Your task to perform on an android device: Do I have any events tomorrow? Image 0: 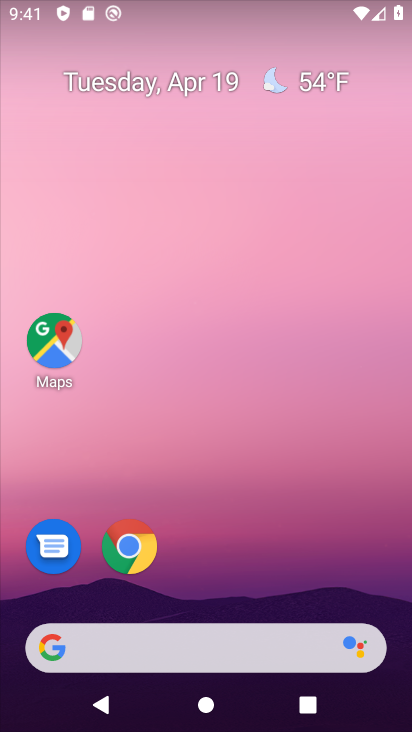
Step 0: drag from (294, 699) to (326, 50)
Your task to perform on an android device: Do I have any events tomorrow? Image 1: 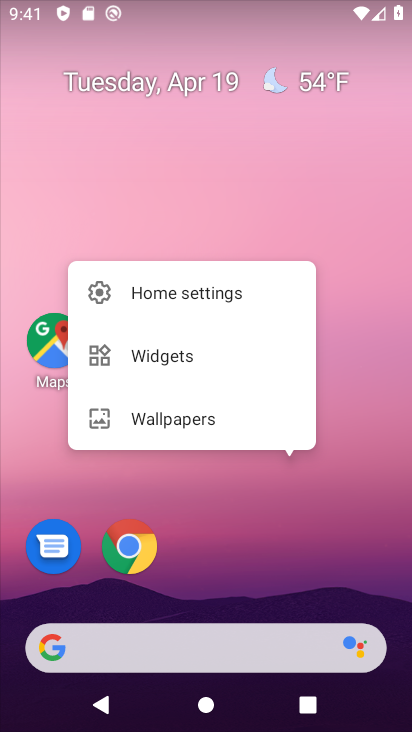
Step 1: click (249, 707)
Your task to perform on an android device: Do I have any events tomorrow? Image 2: 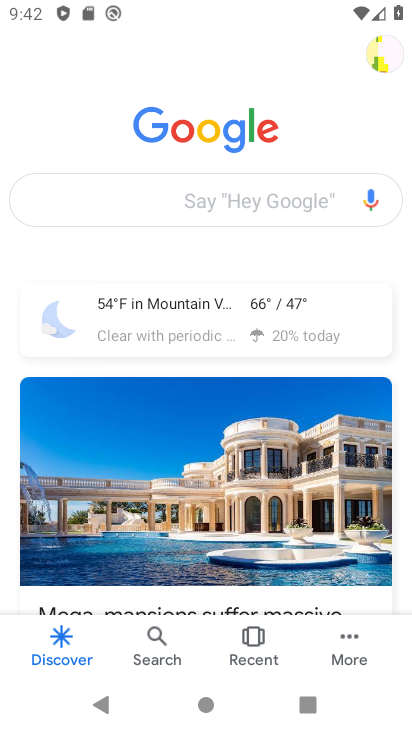
Step 2: press home button
Your task to perform on an android device: Do I have any events tomorrow? Image 3: 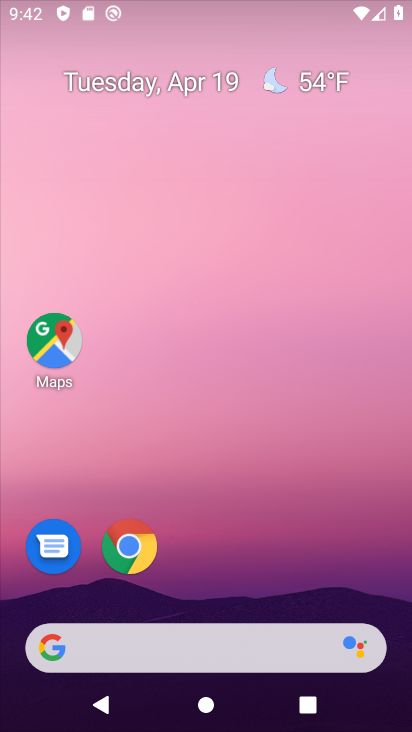
Step 3: drag from (258, 693) to (274, 62)
Your task to perform on an android device: Do I have any events tomorrow? Image 4: 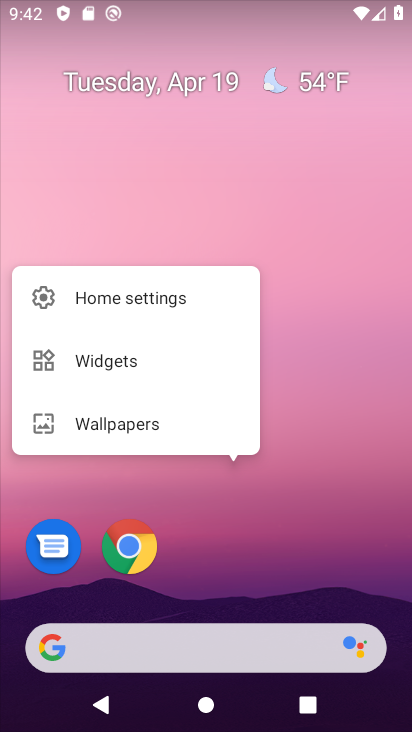
Step 4: click (260, 713)
Your task to perform on an android device: Do I have any events tomorrow? Image 5: 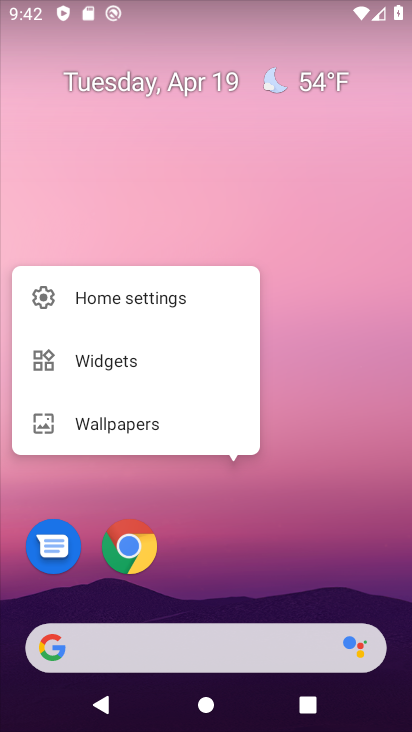
Step 5: click (214, 711)
Your task to perform on an android device: Do I have any events tomorrow? Image 6: 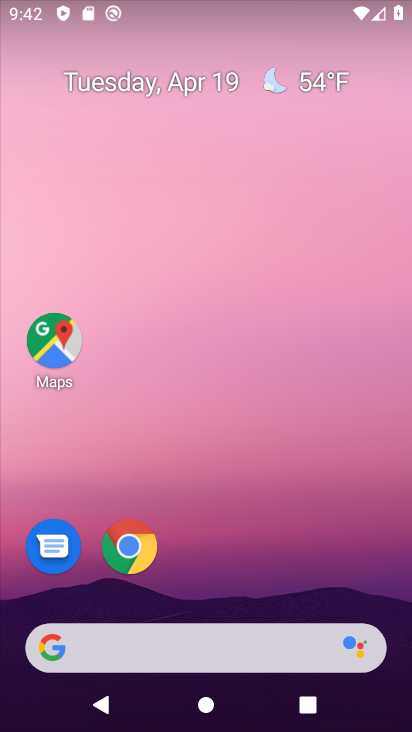
Step 6: drag from (255, 718) to (232, 13)
Your task to perform on an android device: Do I have any events tomorrow? Image 7: 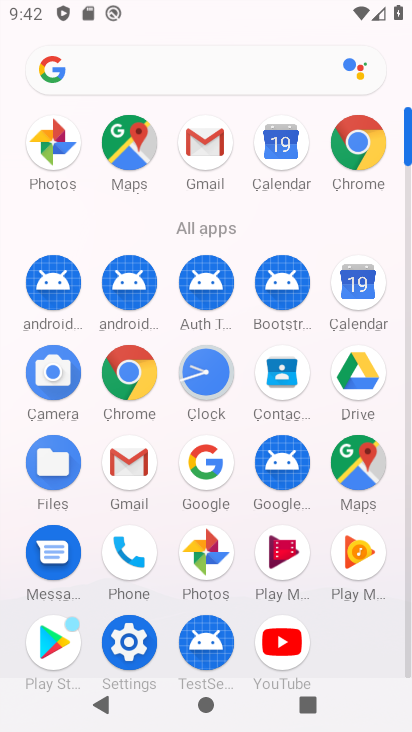
Step 7: click (346, 292)
Your task to perform on an android device: Do I have any events tomorrow? Image 8: 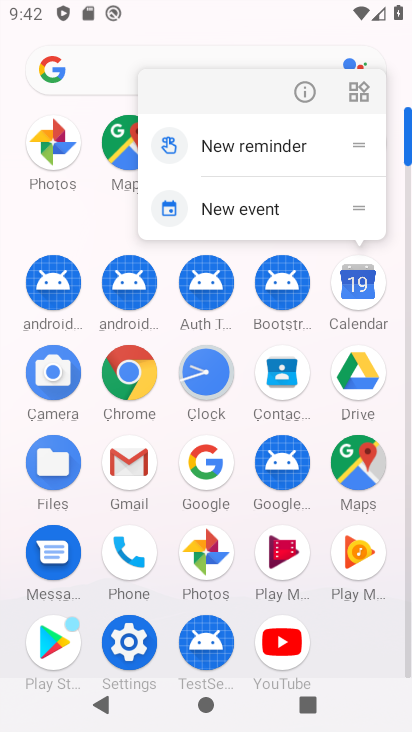
Step 8: click (346, 292)
Your task to perform on an android device: Do I have any events tomorrow? Image 9: 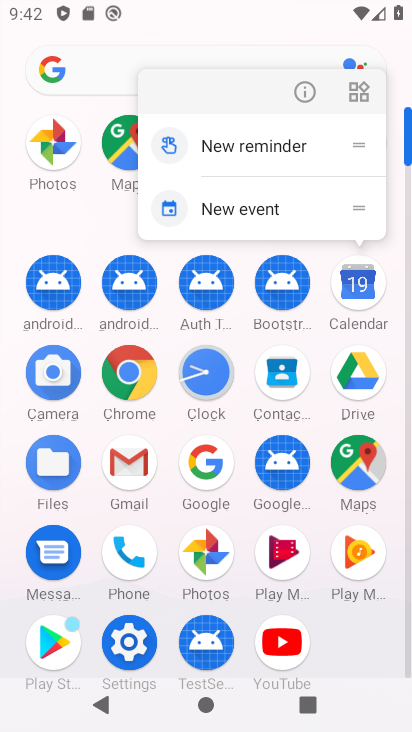
Step 9: click (346, 292)
Your task to perform on an android device: Do I have any events tomorrow? Image 10: 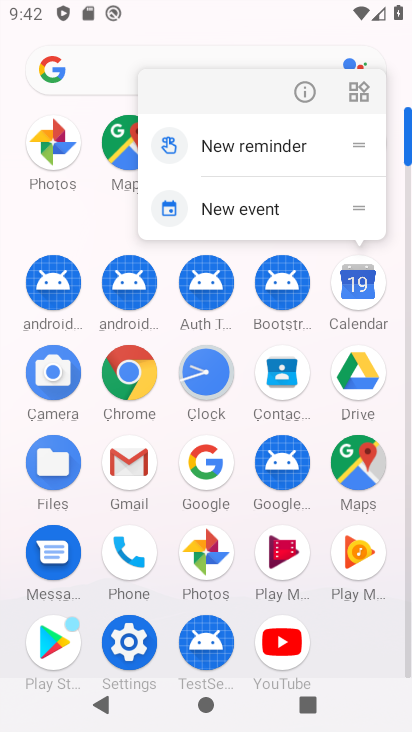
Step 10: click (346, 292)
Your task to perform on an android device: Do I have any events tomorrow? Image 11: 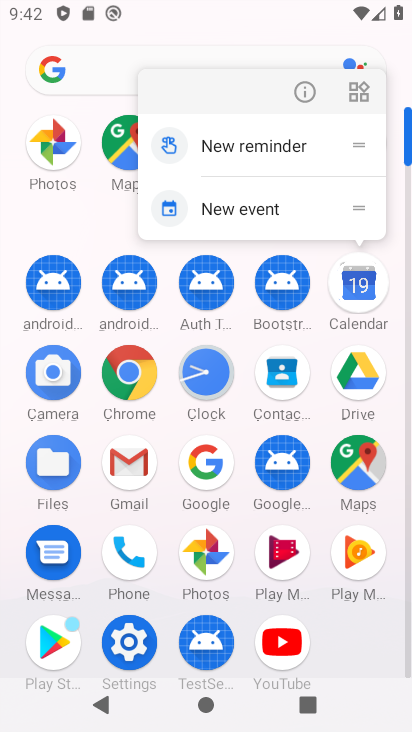
Step 11: click (346, 292)
Your task to perform on an android device: Do I have any events tomorrow? Image 12: 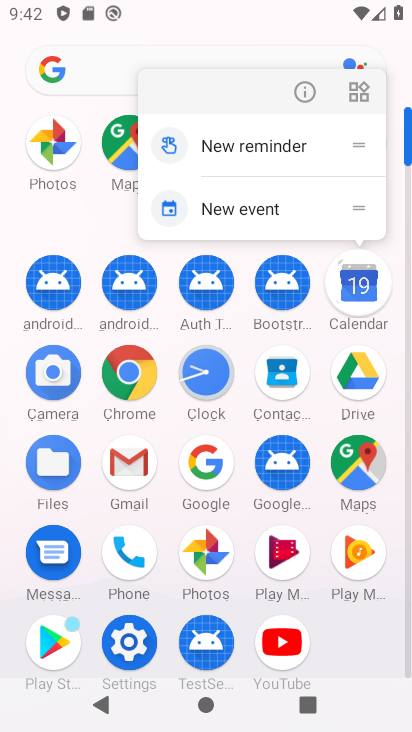
Step 12: click (346, 292)
Your task to perform on an android device: Do I have any events tomorrow? Image 13: 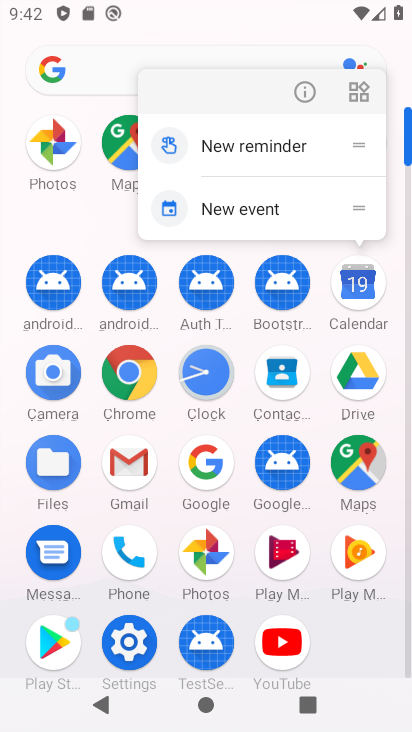
Step 13: click (346, 292)
Your task to perform on an android device: Do I have any events tomorrow? Image 14: 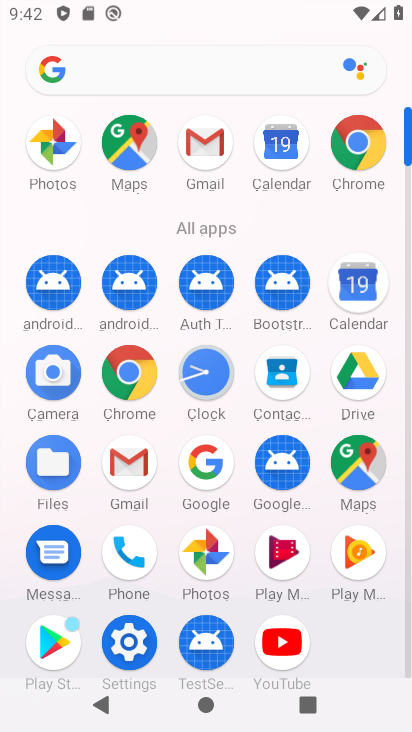
Step 14: click (363, 288)
Your task to perform on an android device: Do I have any events tomorrow? Image 15: 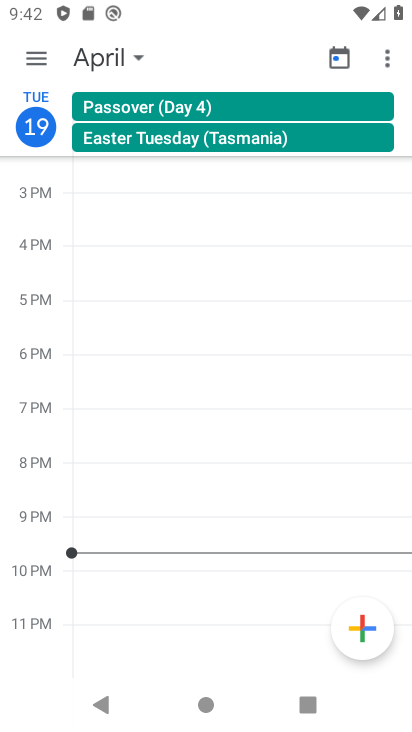
Step 15: click (121, 63)
Your task to perform on an android device: Do I have any events tomorrow? Image 16: 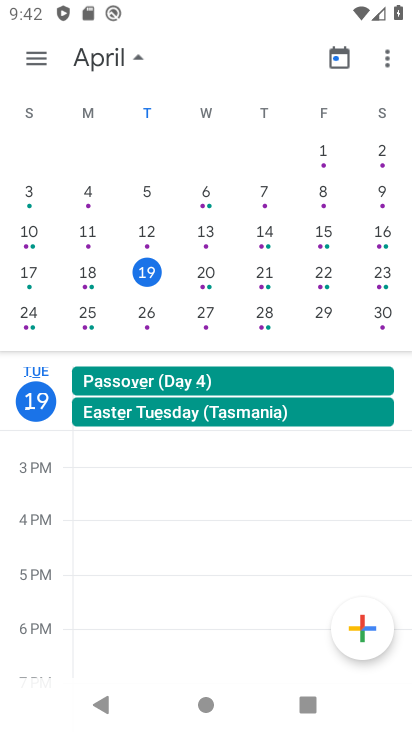
Step 16: click (206, 271)
Your task to perform on an android device: Do I have any events tomorrow? Image 17: 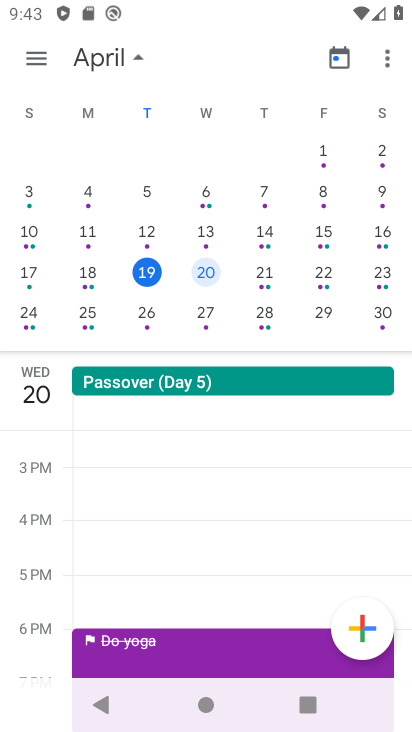
Step 17: task complete